Your task to perform on an android device: see creations saved in the google photos Image 0: 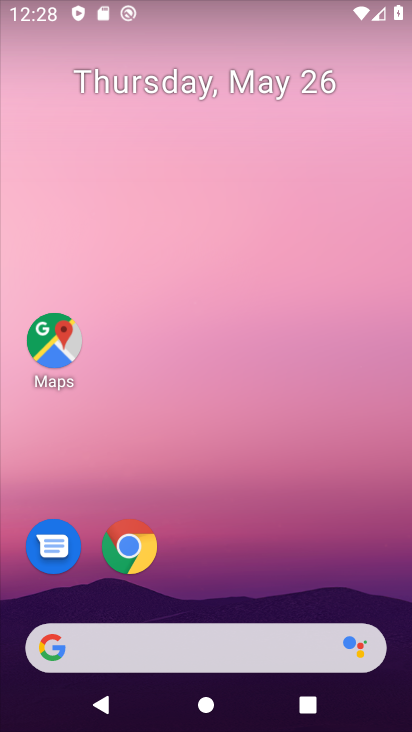
Step 0: drag from (395, 616) to (300, 40)
Your task to perform on an android device: see creations saved in the google photos Image 1: 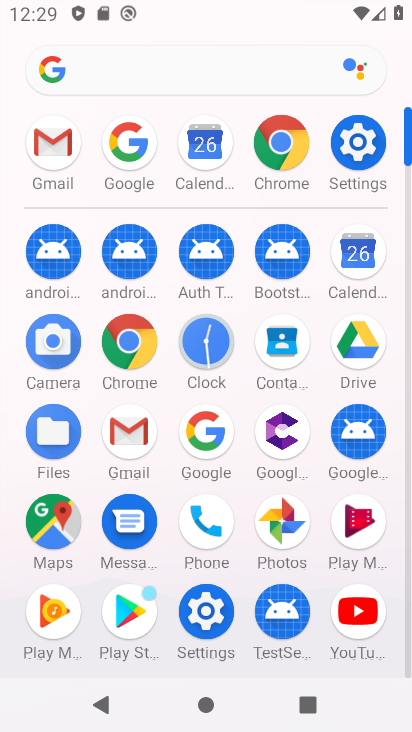
Step 1: click (265, 534)
Your task to perform on an android device: see creations saved in the google photos Image 2: 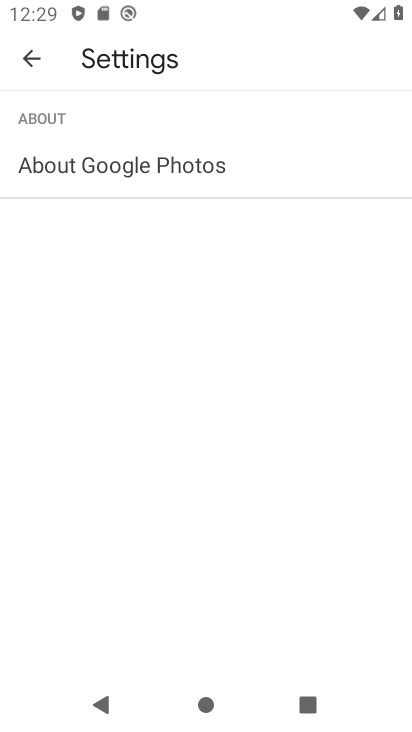
Step 2: press back button
Your task to perform on an android device: see creations saved in the google photos Image 3: 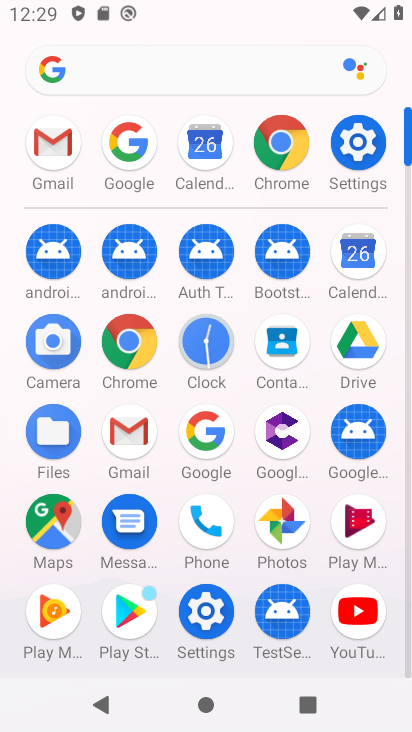
Step 3: click (287, 531)
Your task to perform on an android device: see creations saved in the google photos Image 4: 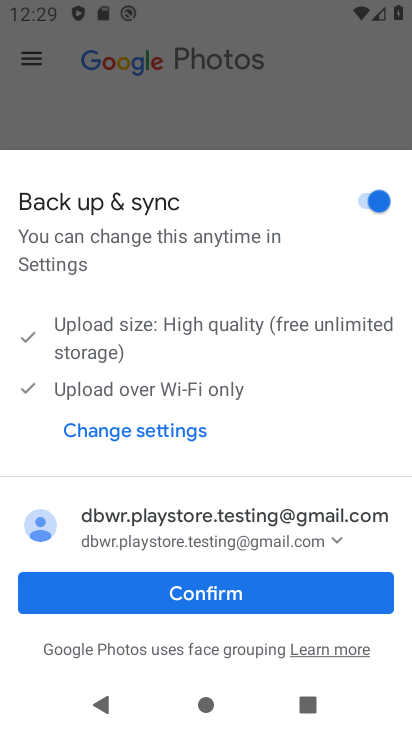
Step 4: click (164, 579)
Your task to perform on an android device: see creations saved in the google photos Image 5: 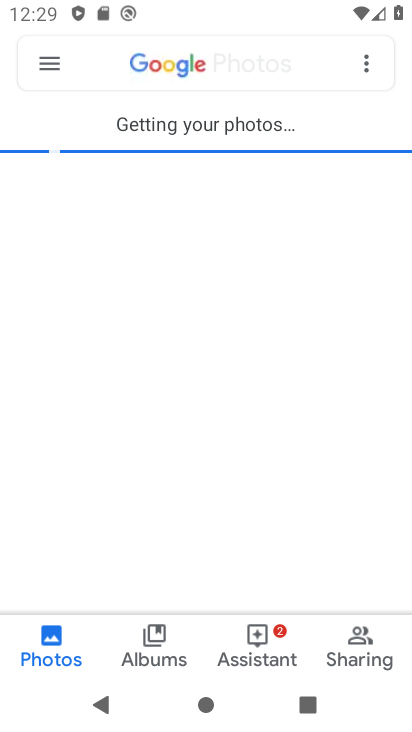
Step 5: click (197, 48)
Your task to perform on an android device: see creations saved in the google photos Image 6: 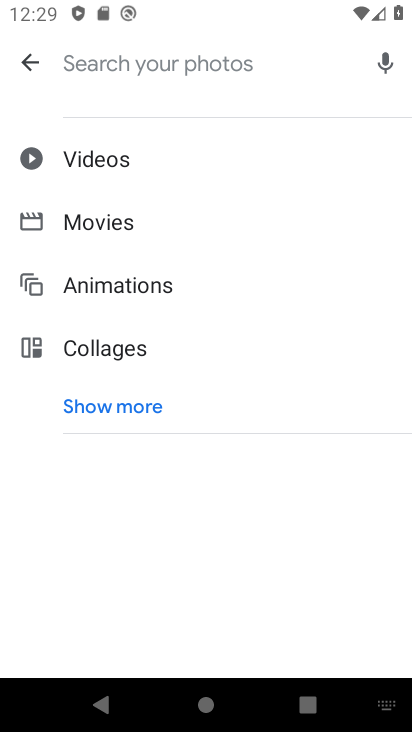
Step 6: click (108, 415)
Your task to perform on an android device: see creations saved in the google photos Image 7: 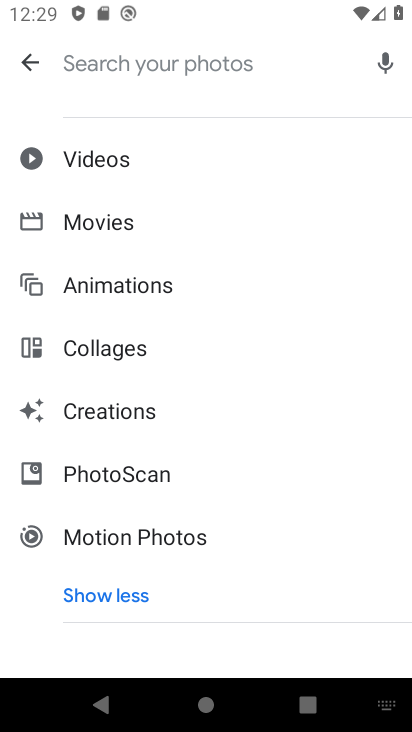
Step 7: click (104, 402)
Your task to perform on an android device: see creations saved in the google photos Image 8: 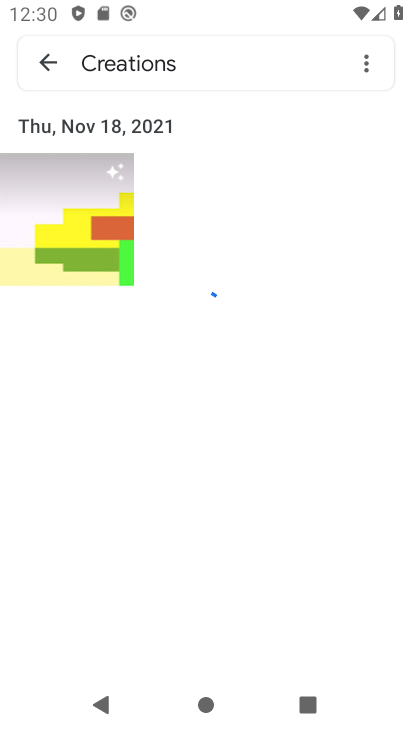
Step 8: task complete